Your task to perform on an android device: turn on data saver in the chrome app Image 0: 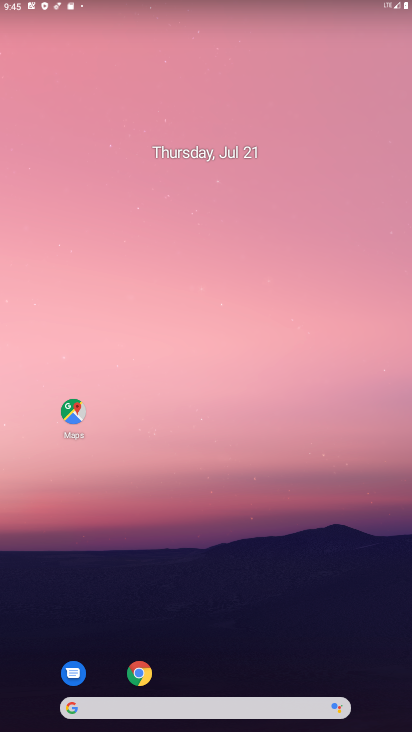
Step 0: click (143, 685)
Your task to perform on an android device: turn on data saver in the chrome app Image 1: 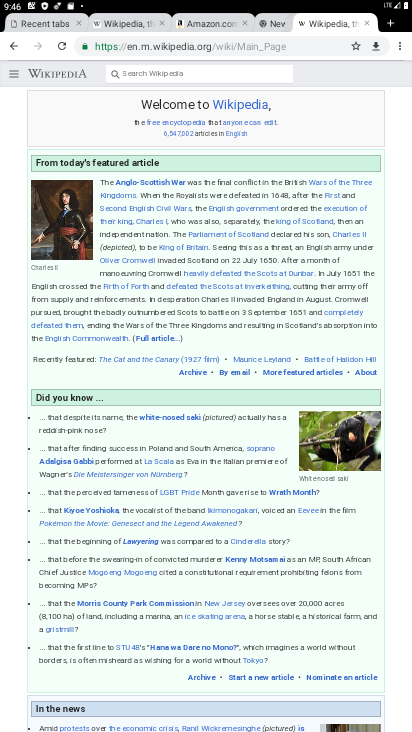
Step 1: click (395, 42)
Your task to perform on an android device: turn on data saver in the chrome app Image 2: 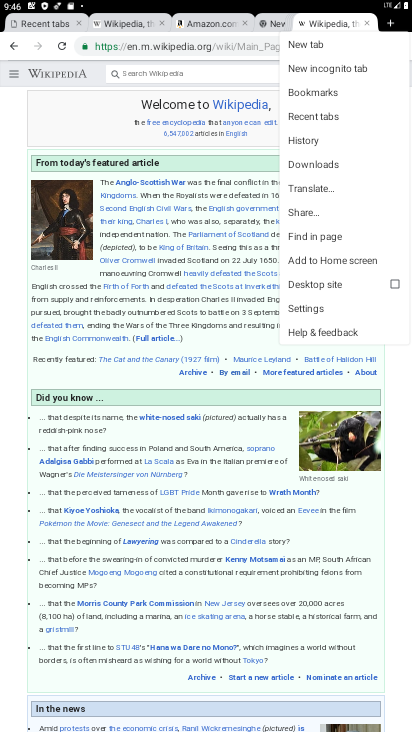
Step 2: click (325, 316)
Your task to perform on an android device: turn on data saver in the chrome app Image 3: 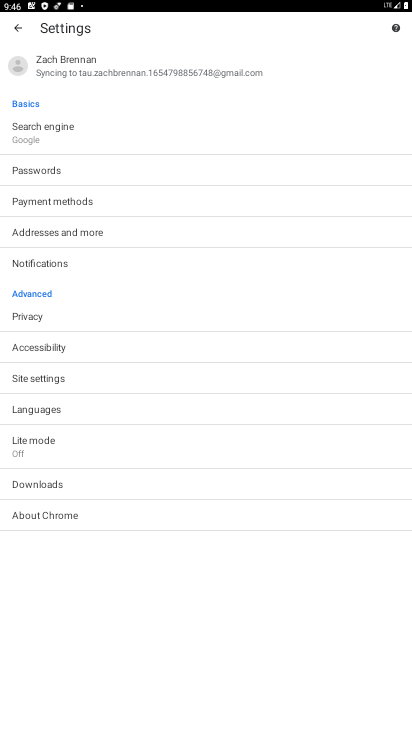
Step 3: click (77, 459)
Your task to perform on an android device: turn on data saver in the chrome app Image 4: 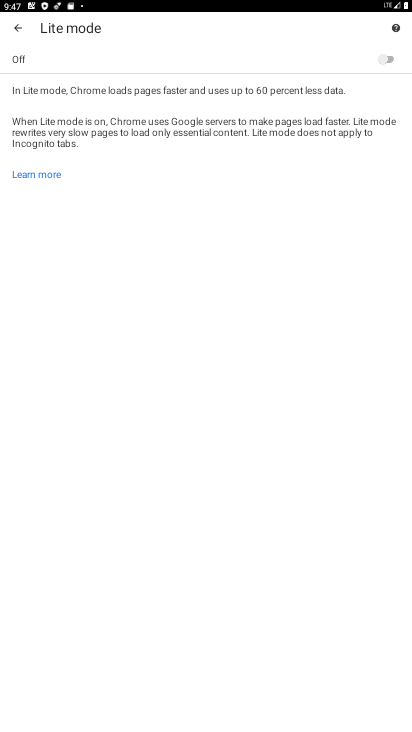
Step 4: click (402, 64)
Your task to perform on an android device: turn on data saver in the chrome app Image 5: 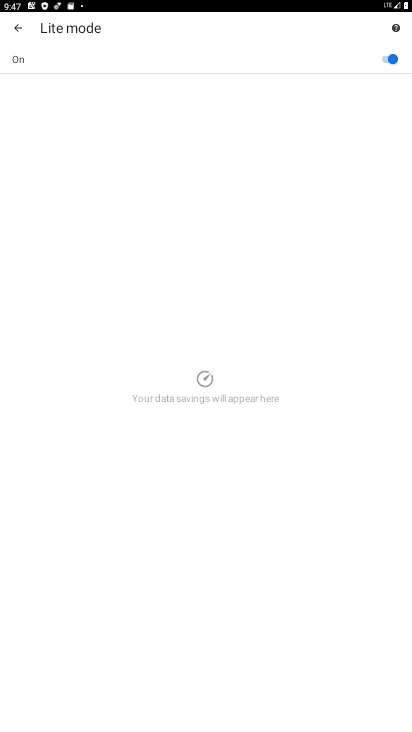
Step 5: task complete